Your task to perform on an android device: toggle airplane mode Image 0: 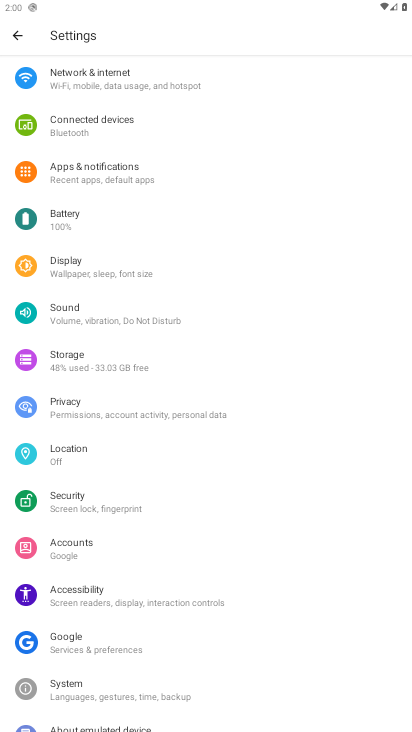
Step 0: click (152, 78)
Your task to perform on an android device: toggle airplane mode Image 1: 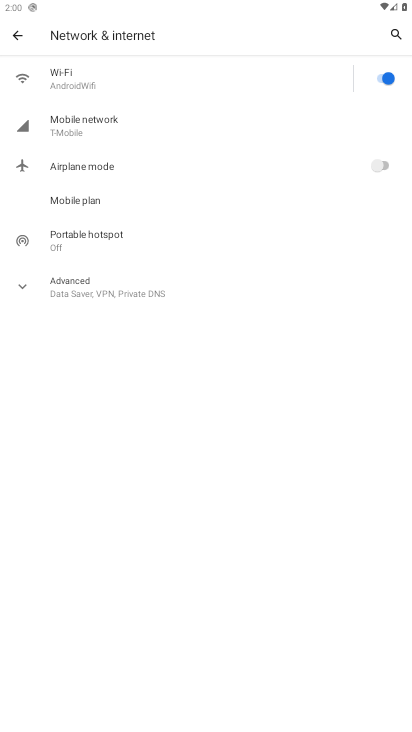
Step 1: click (388, 167)
Your task to perform on an android device: toggle airplane mode Image 2: 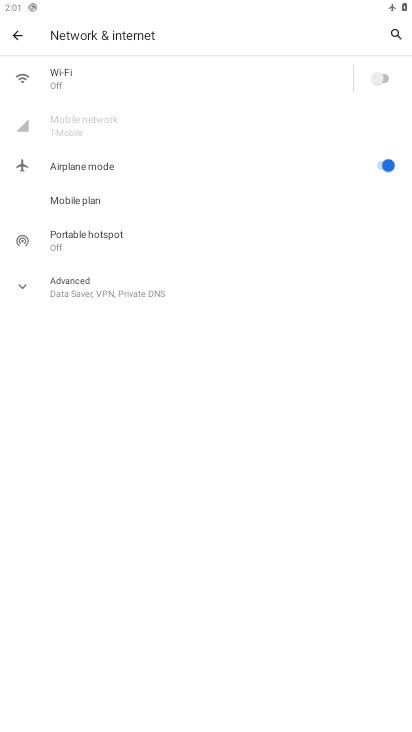
Step 2: task complete